Your task to perform on an android device: open chrome privacy settings Image 0: 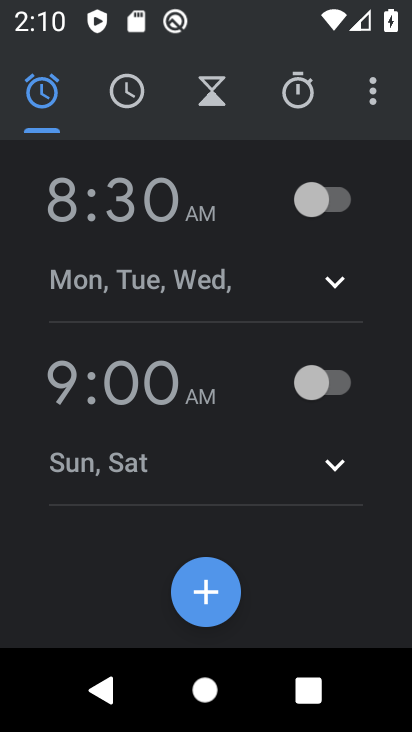
Step 0: press back button
Your task to perform on an android device: open chrome privacy settings Image 1: 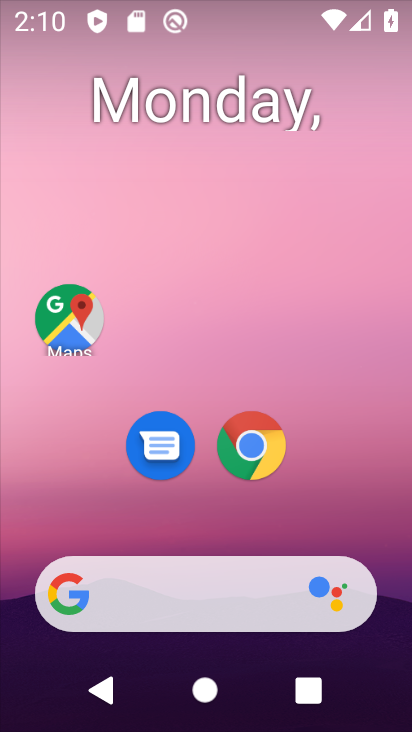
Step 1: click (245, 440)
Your task to perform on an android device: open chrome privacy settings Image 2: 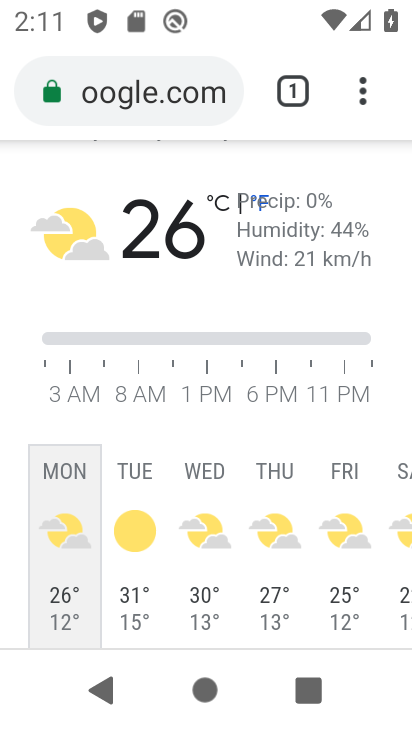
Step 2: drag from (358, 99) to (101, 467)
Your task to perform on an android device: open chrome privacy settings Image 3: 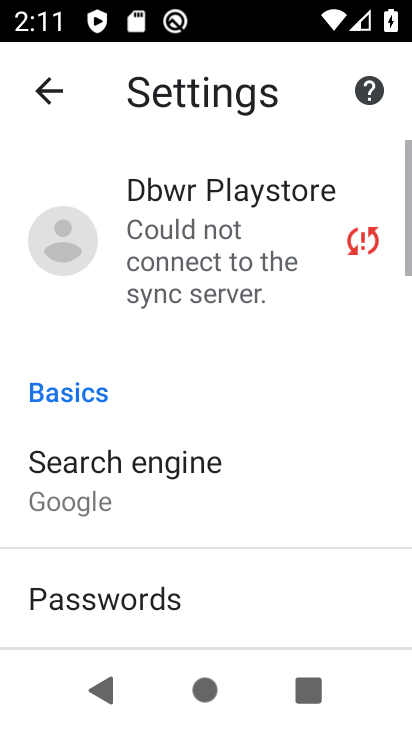
Step 3: drag from (181, 597) to (201, 183)
Your task to perform on an android device: open chrome privacy settings Image 4: 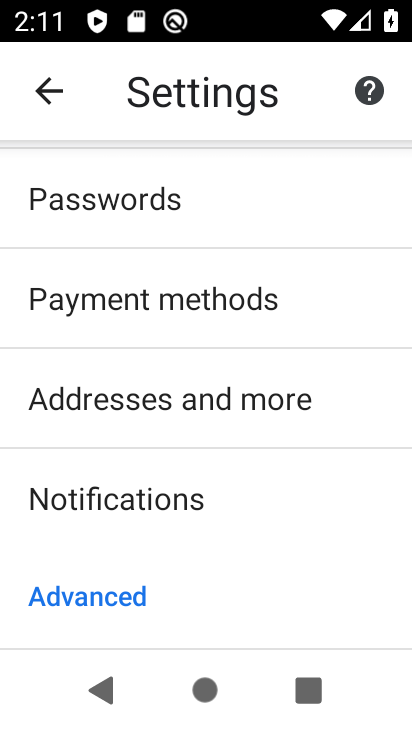
Step 4: drag from (192, 566) to (194, 205)
Your task to perform on an android device: open chrome privacy settings Image 5: 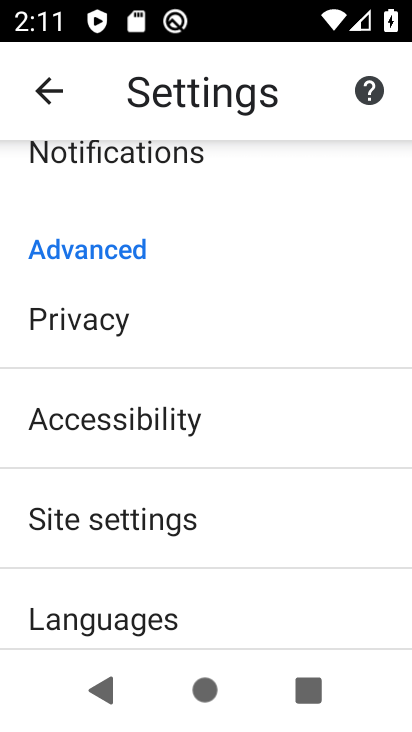
Step 5: click (117, 325)
Your task to perform on an android device: open chrome privacy settings Image 6: 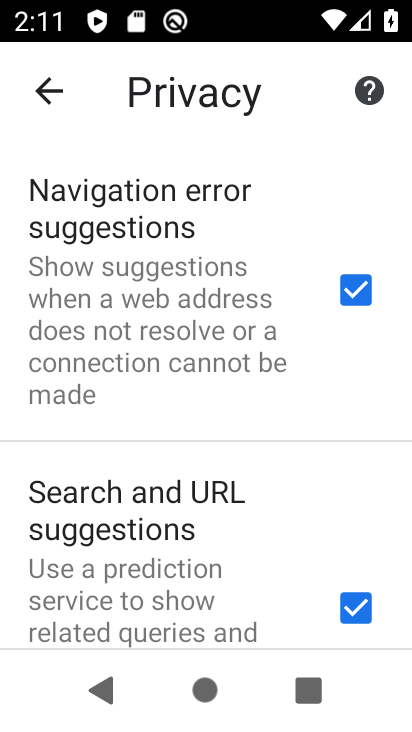
Step 6: task complete